Your task to perform on an android device: Go to Reddit.com Image 0: 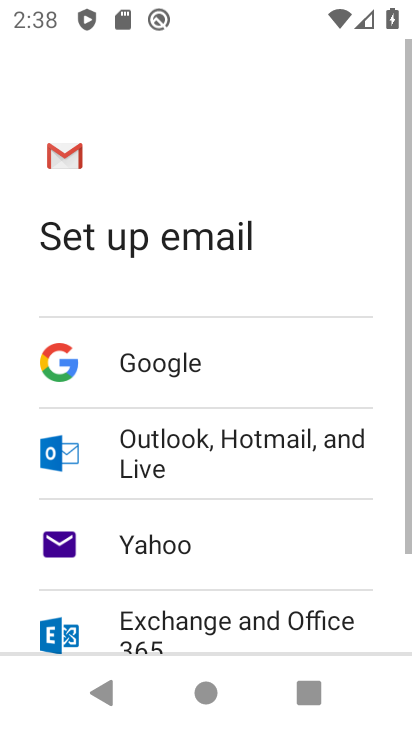
Step 0: press home button
Your task to perform on an android device: Go to Reddit.com Image 1: 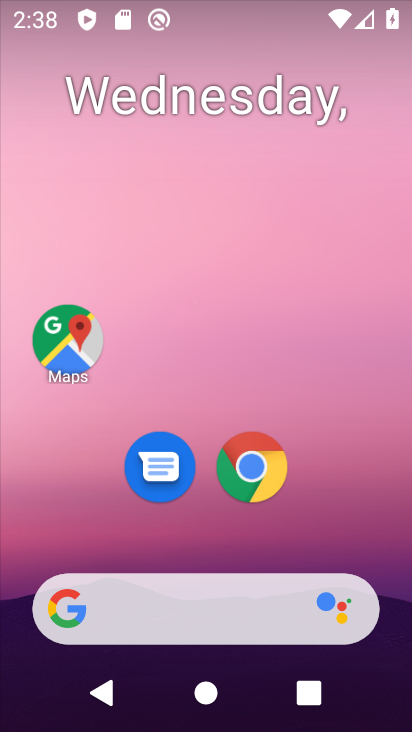
Step 1: click (177, 637)
Your task to perform on an android device: Go to Reddit.com Image 2: 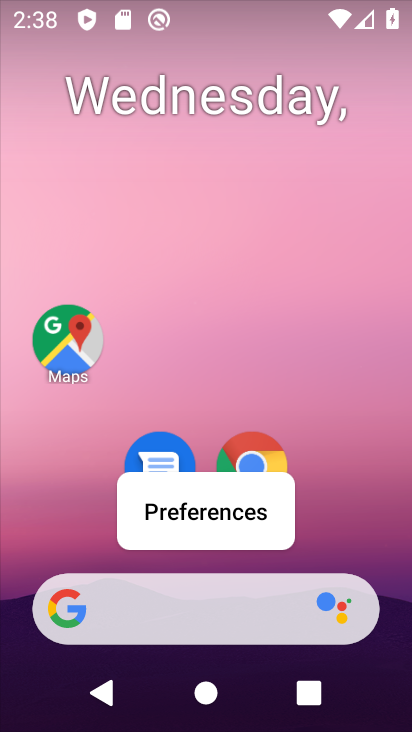
Step 2: click (183, 624)
Your task to perform on an android device: Go to Reddit.com Image 3: 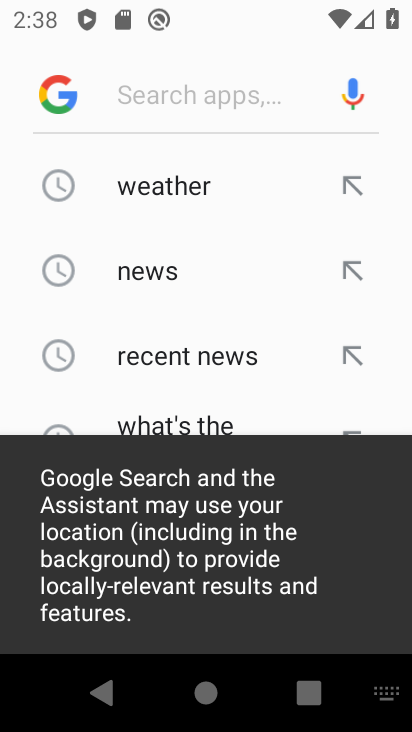
Step 3: click (175, 125)
Your task to perform on an android device: Go to Reddit.com Image 4: 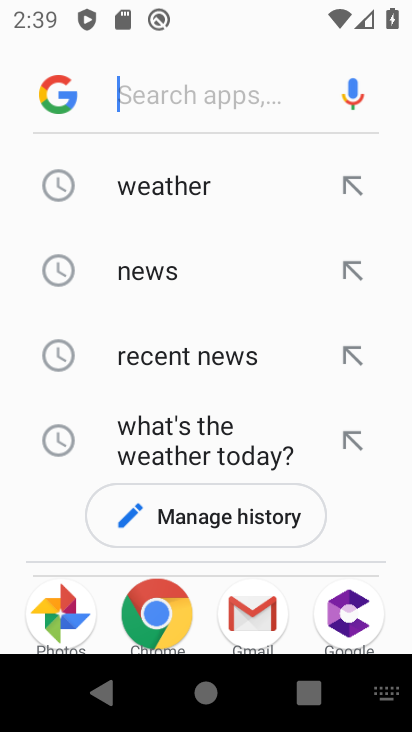
Step 4: type "Reddit.com"
Your task to perform on an android device: Go to Reddit.com Image 5: 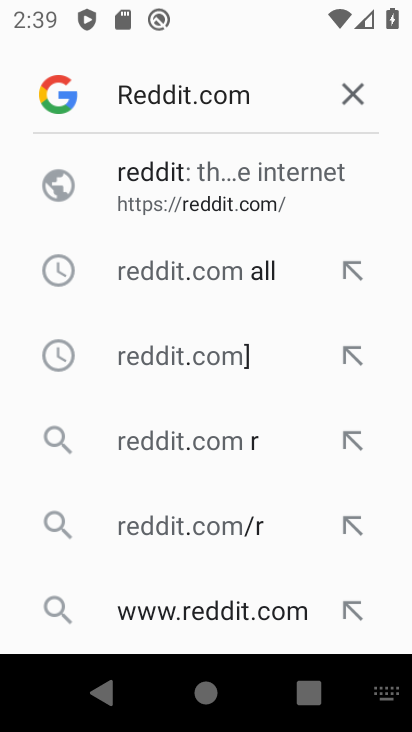
Step 5: click (244, 206)
Your task to perform on an android device: Go to Reddit.com Image 6: 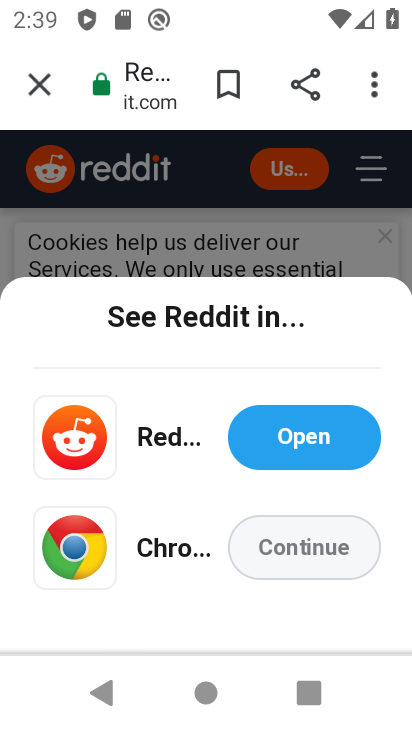
Step 6: click (326, 537)
Your task to perform on an android device: Go to Reddit.com Image 7: 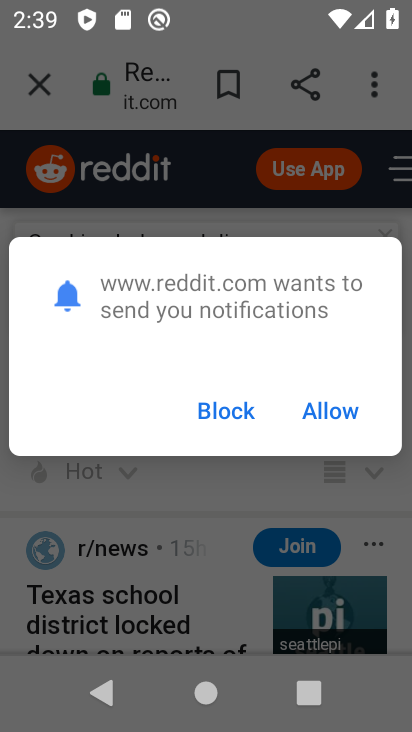
Step 7: click (337, 409)
Your task to perform on an android device: Go to Reddit.com Image 8: 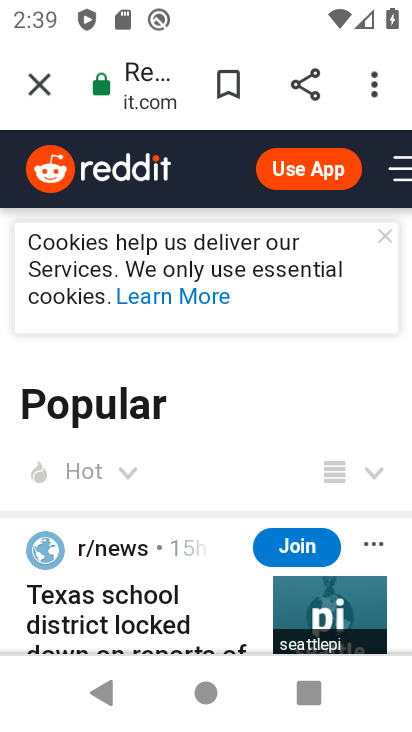
Step 8: task complete